Your task to perform on an android device: Open settings on Google Maps Image 0: 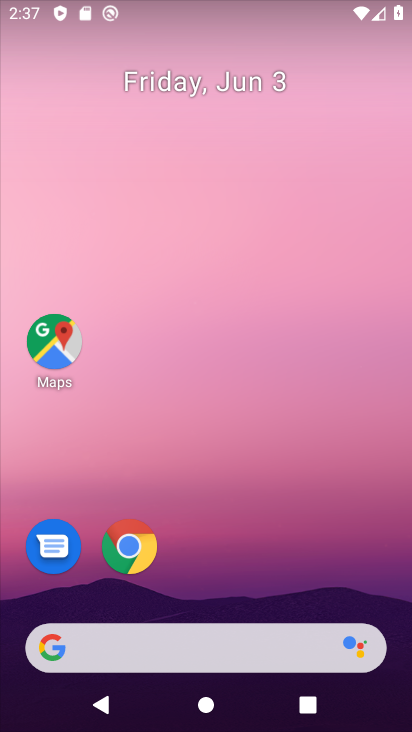
Step 0: click (49, 341)
Your task to perform on an android device: Open settings on Google Maps Image 1: 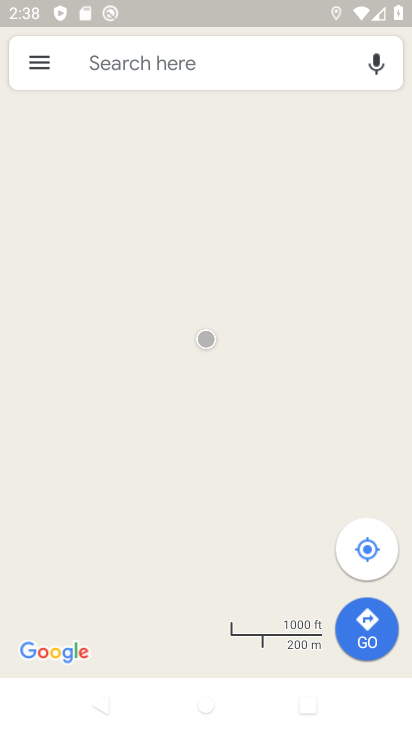
Step 1: click (36, 68)
Your task to perform on an android device: Open settings on Google Maps Image 2: 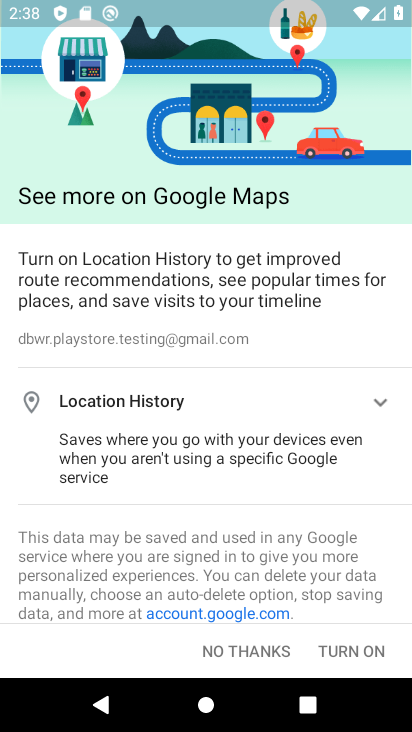
Step 2: click (268, 663)
Your task to perform on an android device: Open settings on Google Maps Image 3: 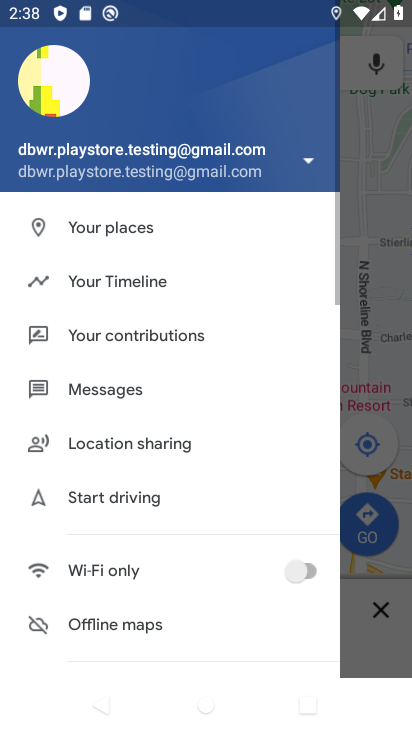
Step 3: drag from (253, 634) to (249, 131)
Your task to perform on an android device: Open settings on Google Maps Image 4: 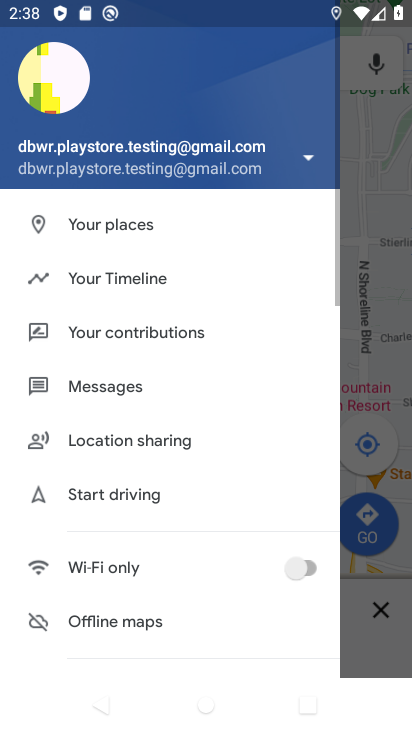
Step 4: drag from (211, 502) to (165, 95)
Your task to perform on an android device: Open settings on Google Maps Image 5: 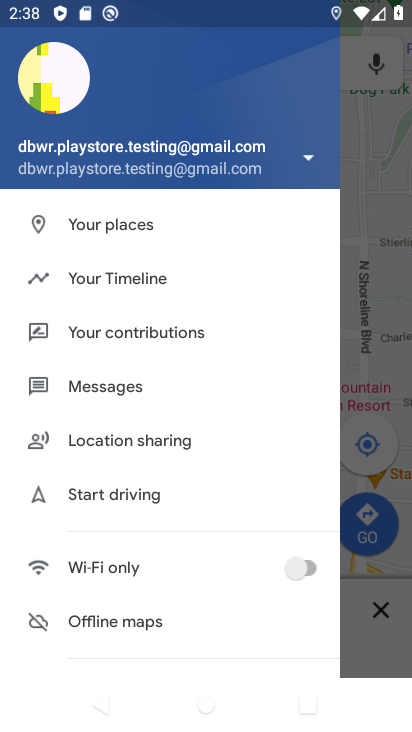
Step 5: drag from (147, 450) to (181, 4)
Your task to perform on an android device: Open settings on Google Maps Image 6: 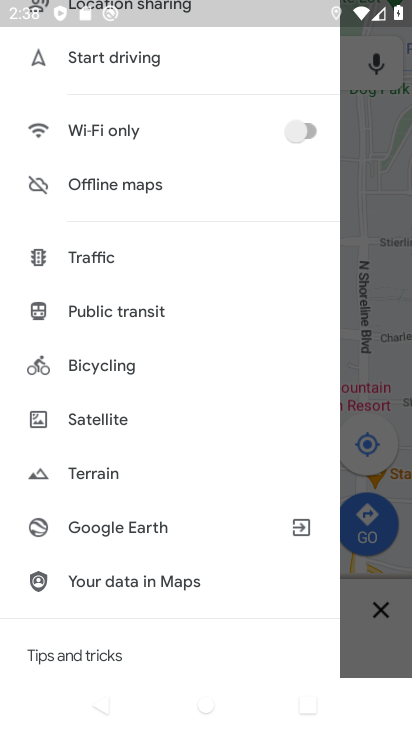
Step 6: drag from (172, 509) to (199, 101)
Your task to perform on an android device: Open settings on Google Maps Image 7: 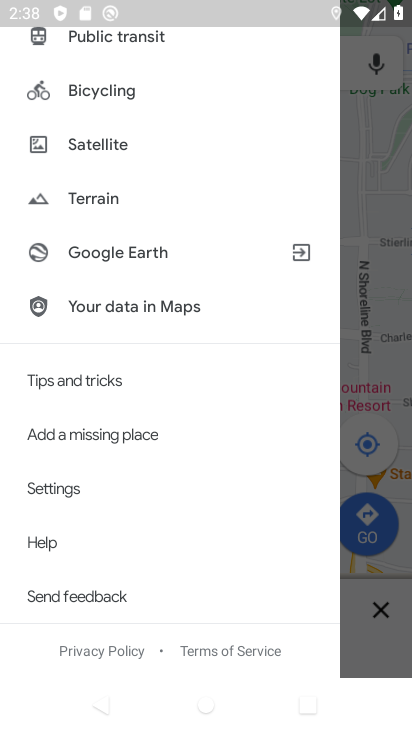
Step 7: click (76, 500)
Your task to perform on an android device: Open settings on Google Maps Image 8: 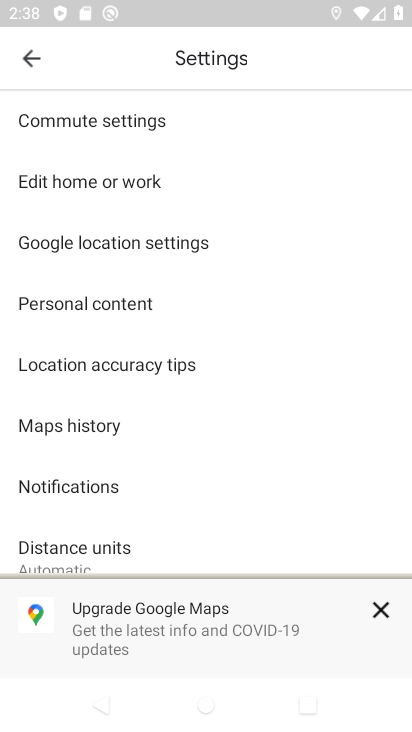
Step 8: task complete